Your task to perform on an android device: Open eBay Image 0: 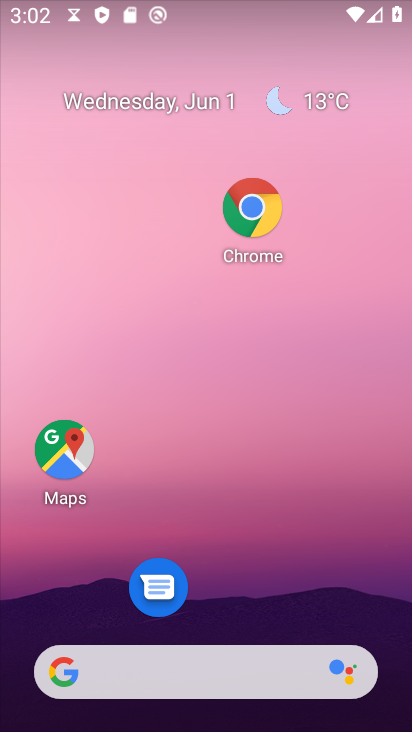
Step 0: drag from (270, 566) to (249, 237)
Your task to perform on an android device: Open eBay Image 1: 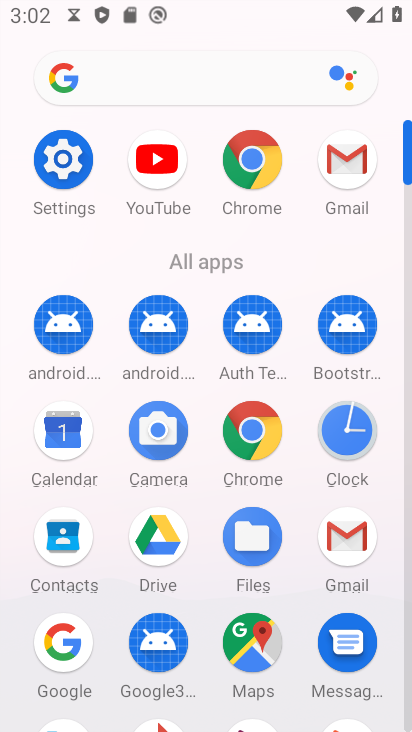
Step 1: click (262, 430)
Your task to perform on an android device: Open eBay Image 2: 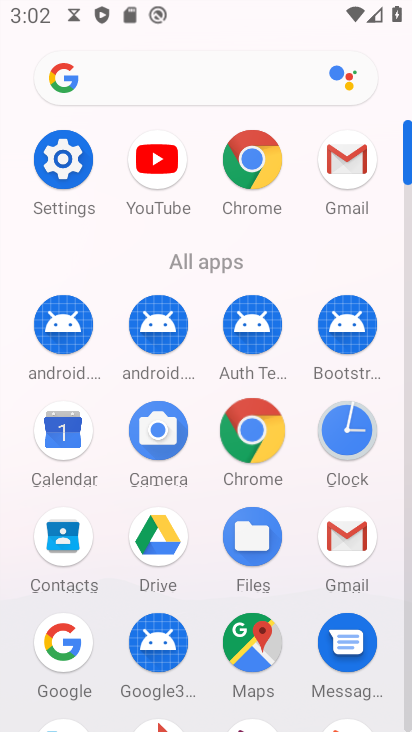
Step 2: click (262, 430)
Your task to perform on an android device: Open eBay Image 3: 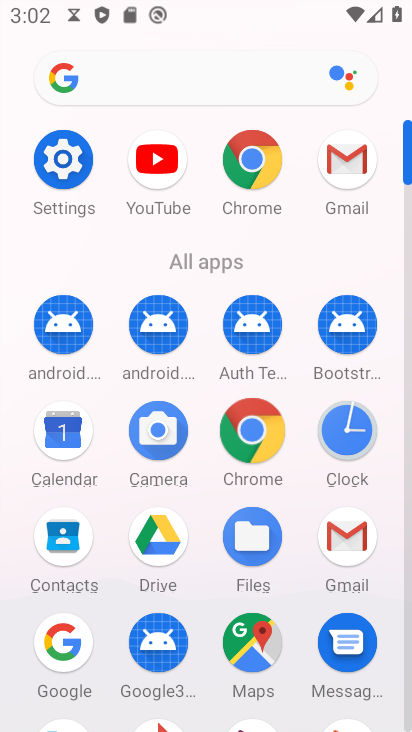
Step 3: click (262, 430)
Your task to perform on an android device: Open eBay Image 4: 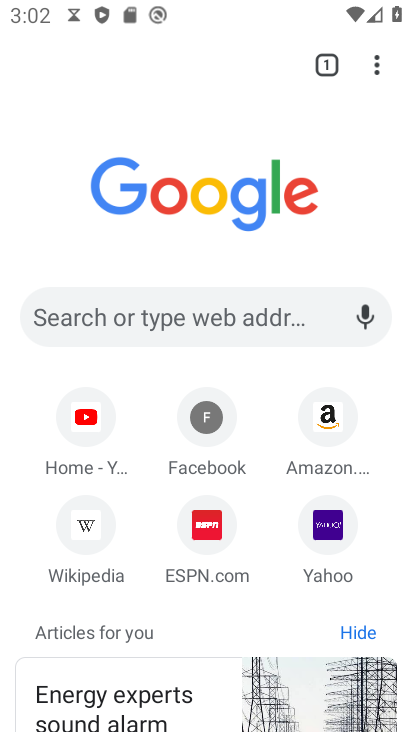
Step 4: click (380, 60)
Your task to perform on an android device: Open eBay Image 5: 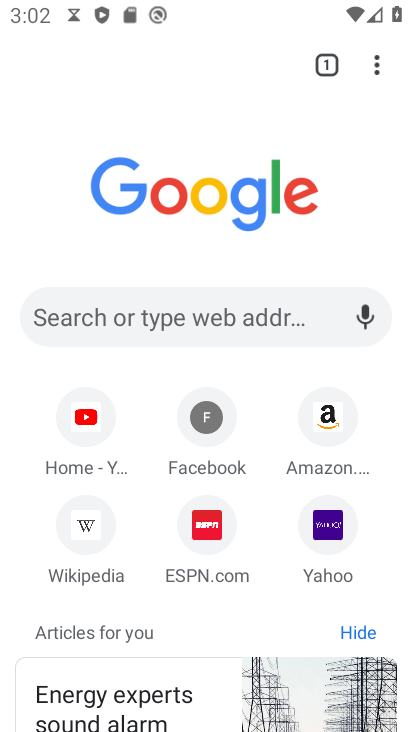
Step 5: click (377, 74)
Your task to perform on an android device: Open eBay Image 6: 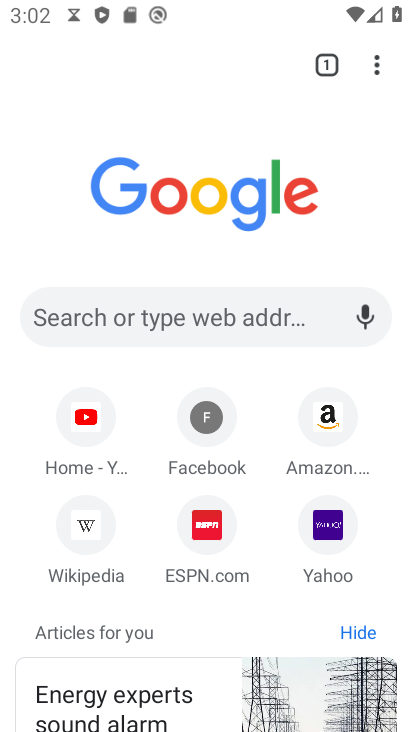
Step 6: click (371, 71)
Your task to perform on an android device: Open eBay Image 7: 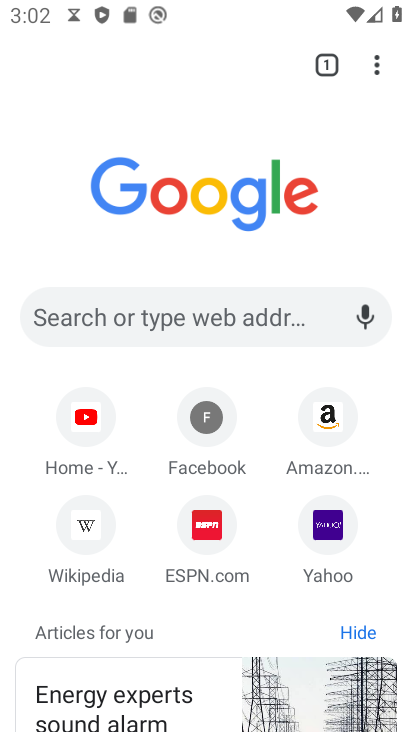
Step 7: click (373, 72)
Your task to perform on an android device: Open eBay Image 8: 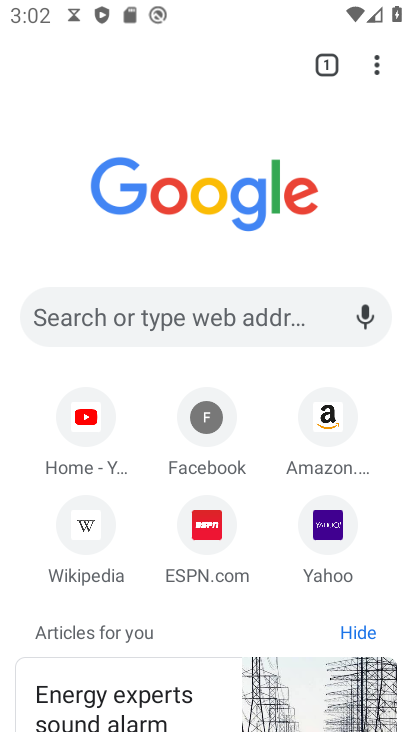
Step 8: click (375, 67)
Your task to perform on an android device: Open eBay Image 9: 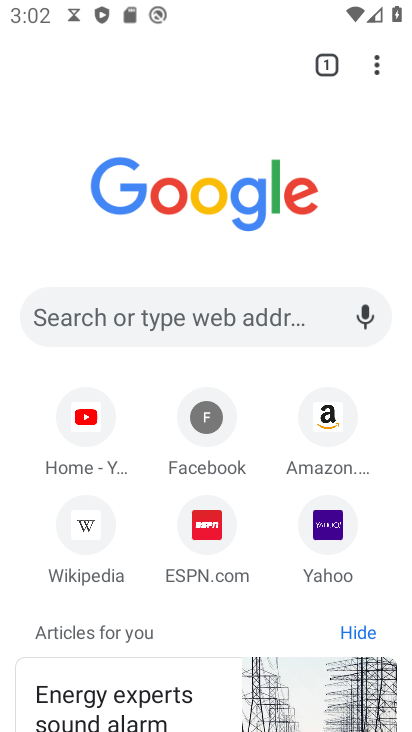
Step 9: drag from (376, 68) to (137, 132)
Your task to perform on an android device: Open eBay Image 10: 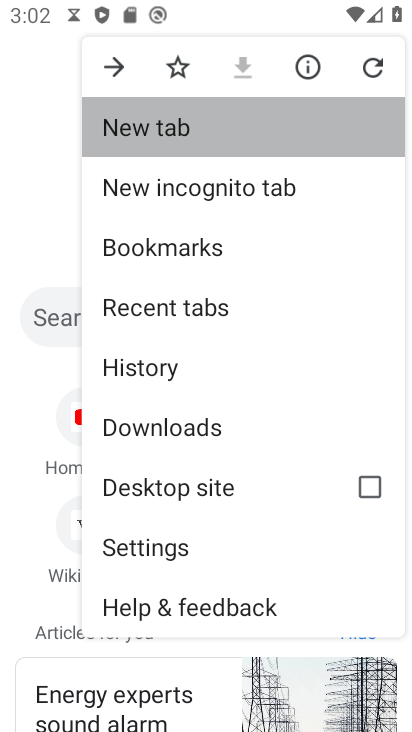
Step 10: click (136, 135)
Your task to perform on an android device: Open eBay Image 11: 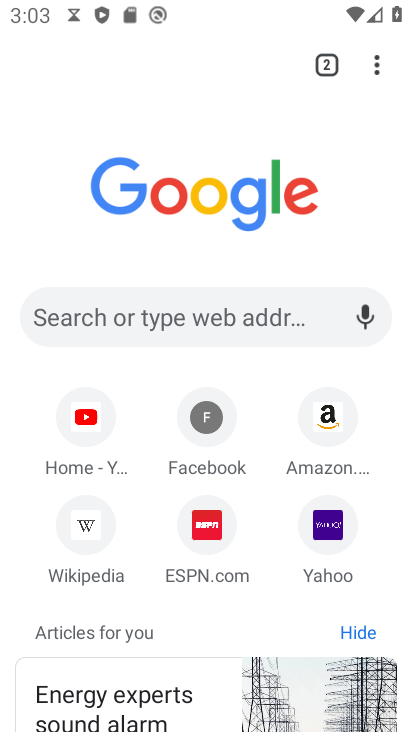
Step 11: click (376, 76)
Your task to perform on an android device: Open eBay Image 12: 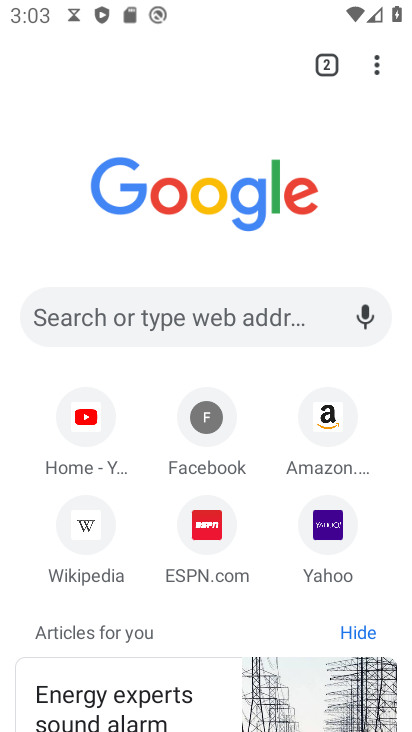
Step 12: click (376, 62)
Your task to perform on an android device: Open eBay Image 13: 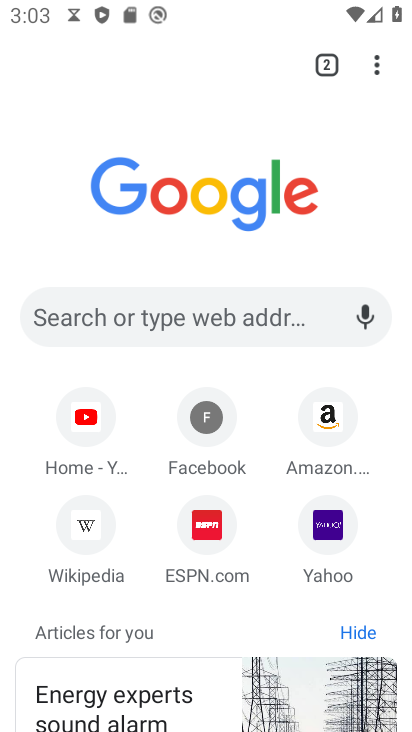
Step 13: click (138, 119)
Your task to perform on an android device: Open eBay Image 14: 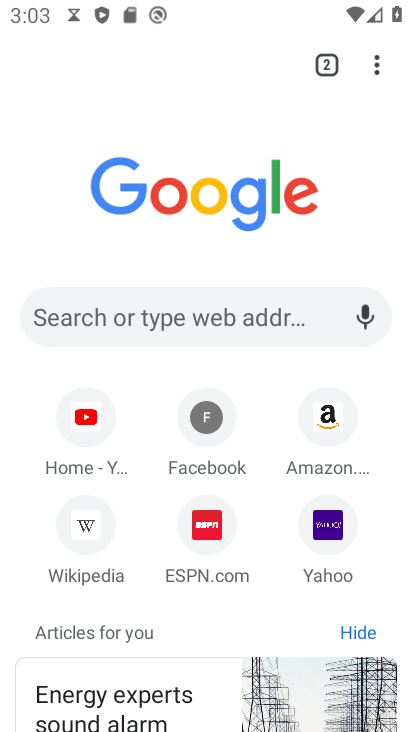
Step 14: click (138, 119)
Your task to perform on an android device: Open eBay Image 15: 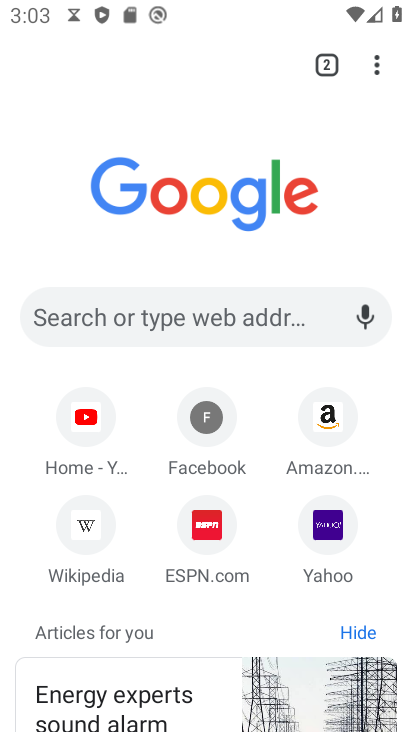
Step 15: click (138, 119)
Your task to perform on an android device: Open eBay Image 16: 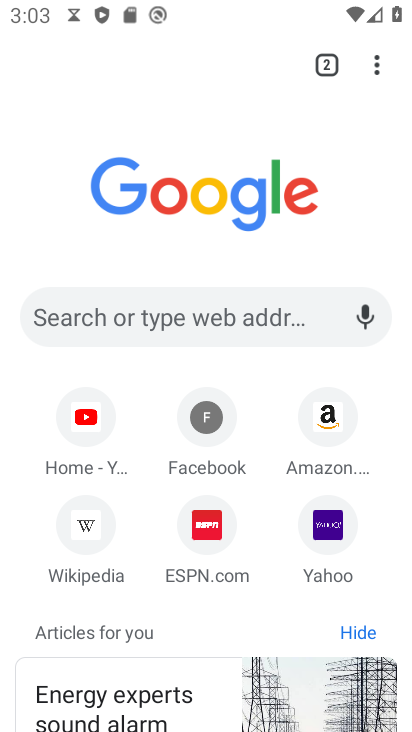
Step 16: click (47, 315)
Your task to perform on an android device: Open eBay Image 17: 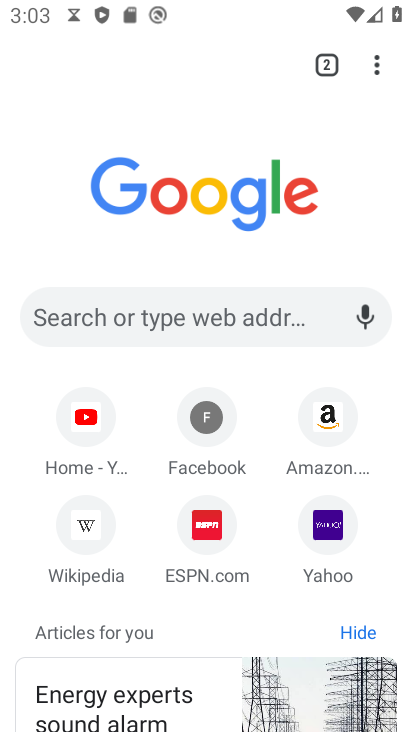
Step 17: click (47, 315)
Your task to perform on an android device: Open eBay Image 18: 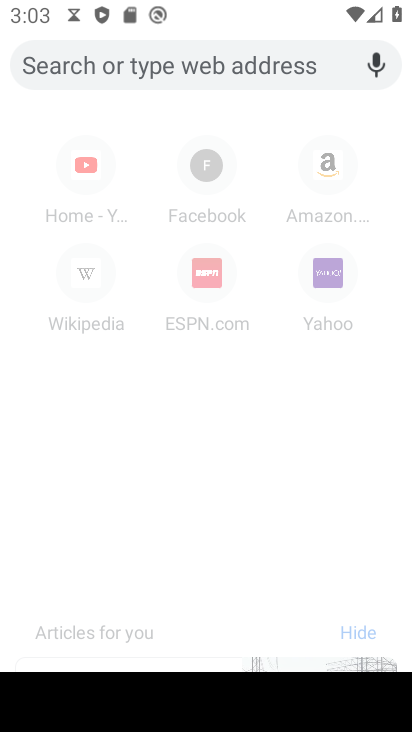
Step 18: type "ebay .com"
Your task to perform on an android device: Open eBay Image 19: 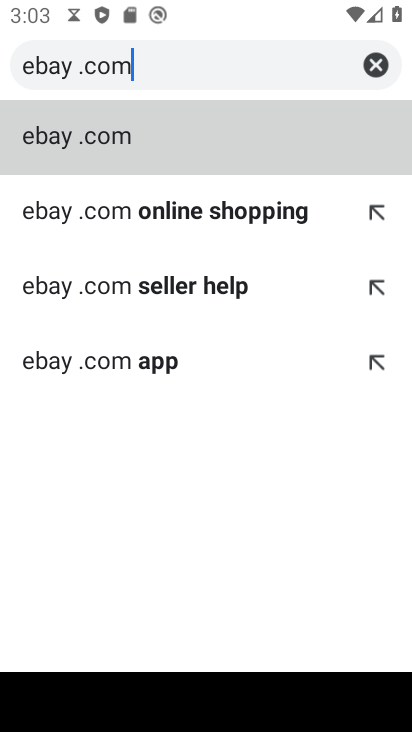
Step 19: click (69, 132)
Your task to perform on an android device: Open eBay Image 20: 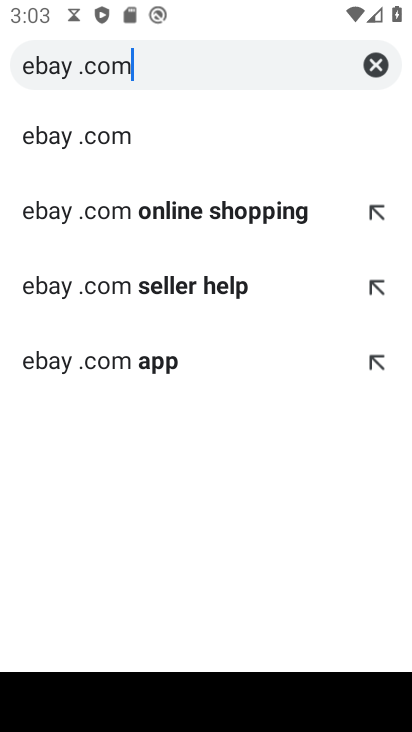
Step 20: click (69, 132)
Your task to perform on an android device: Open eBay Image 21: 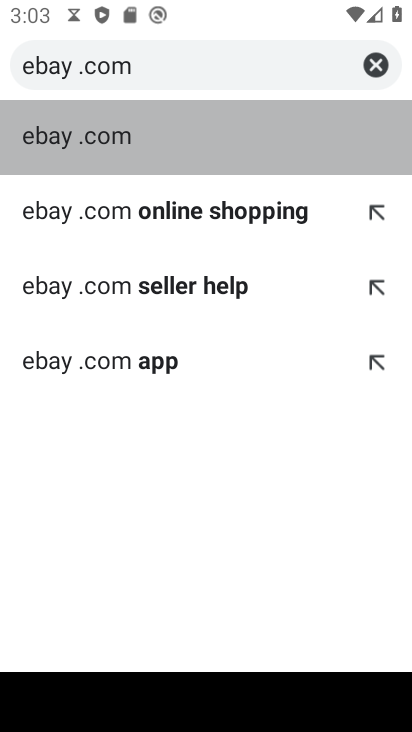
Step 21: click (69, 132)
Your task to perform on an android device: Open eBay Image 22: 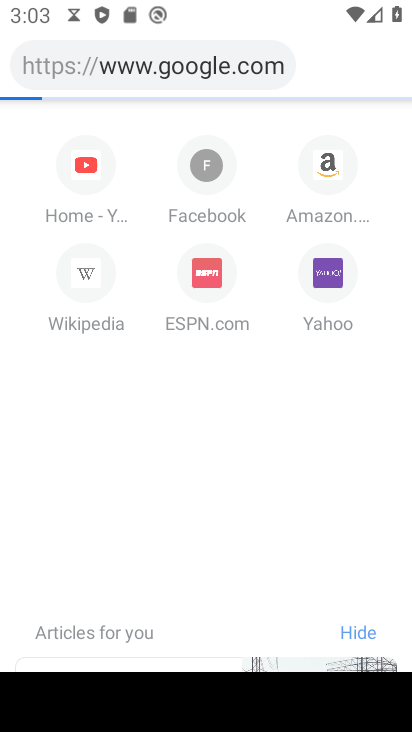
Step 22: click (69, 132)
Your task to perform on an android device: Open eBay Image 23: 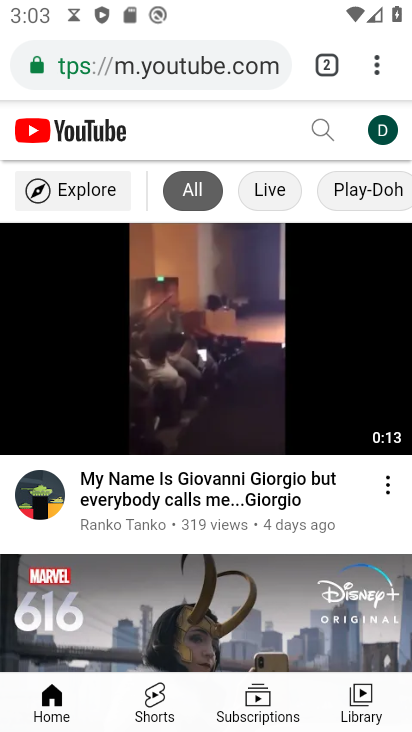
Step 23: task complete